Your task to perform on an android device: Open ESPN.com Image 0: 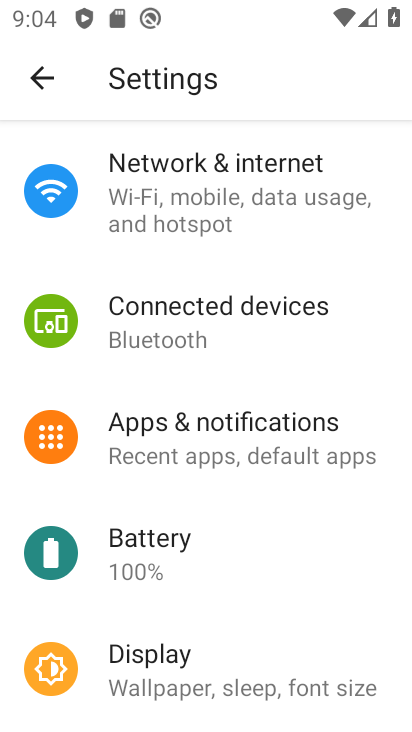
Step 0: press home button
Your task to perform on an android device: Open ESPN.com Image 1: 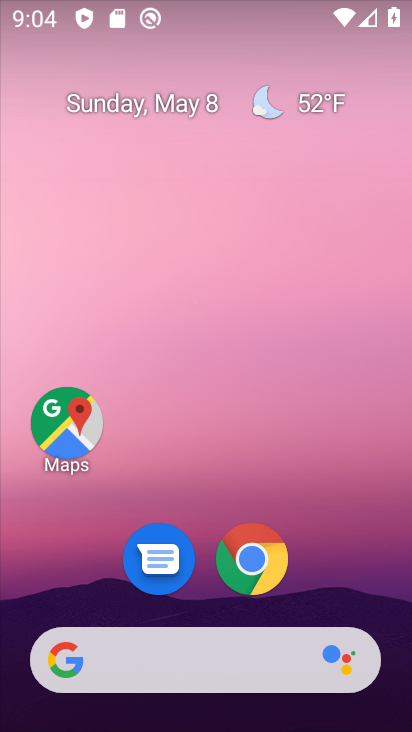
Step 1: click (241, 551)
Your task to perform on an android device: Open ESPN.com Image 2: 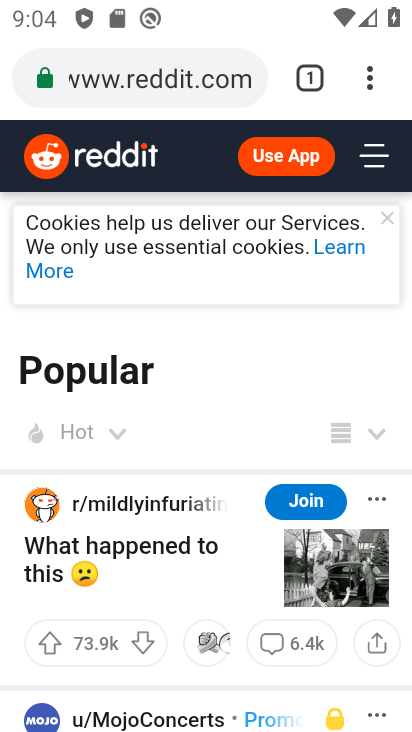
Step 2: click (314, 85)
Your task to perform on an android device: Open ESPN.com Image 3: 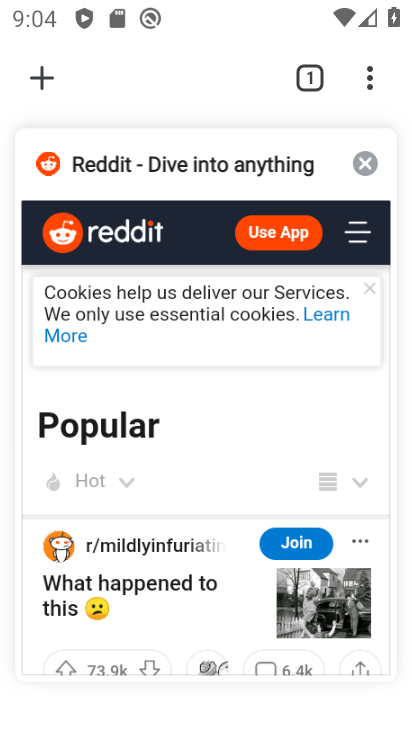
Step 3: click (364, 168)
Your task to perform on an android device: Open ESPN.com Image 4: 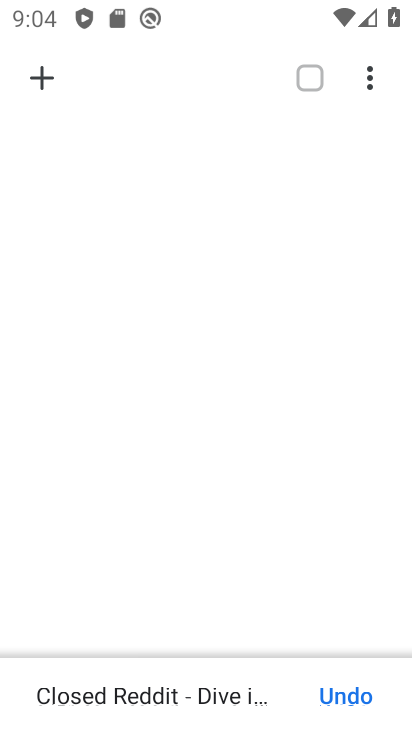
Step 4: click (48, 86)
Your task to perform on an android device: Open ESPN.com Image 5: 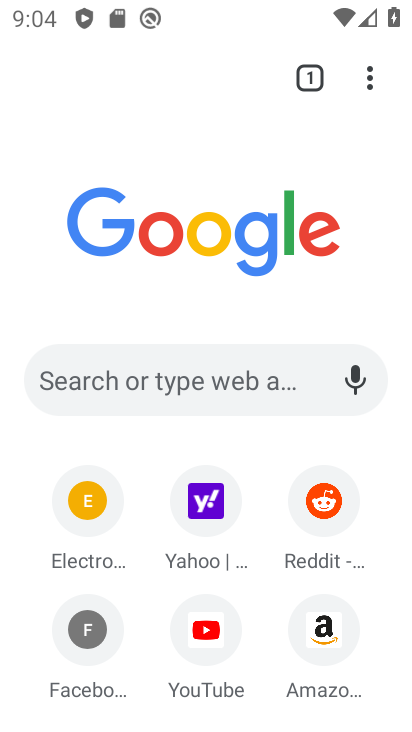
Step 5: click (208, 375)
Your task to perform on an android device: Open ESPN.com Image 6: 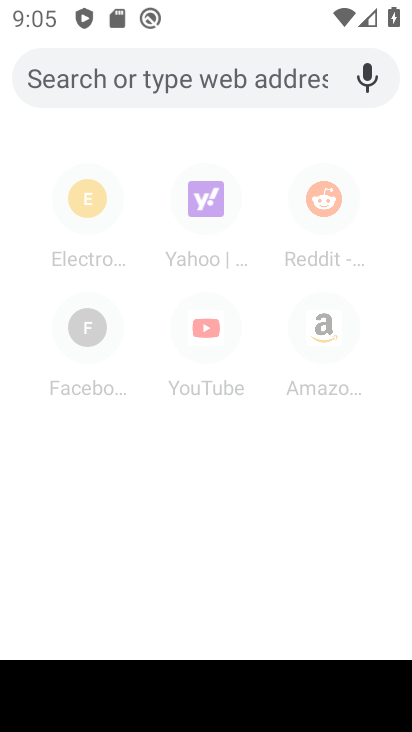
Step 6: type "espm.com"
Your task to perform on an android device: Open ESPN.com Image 7: 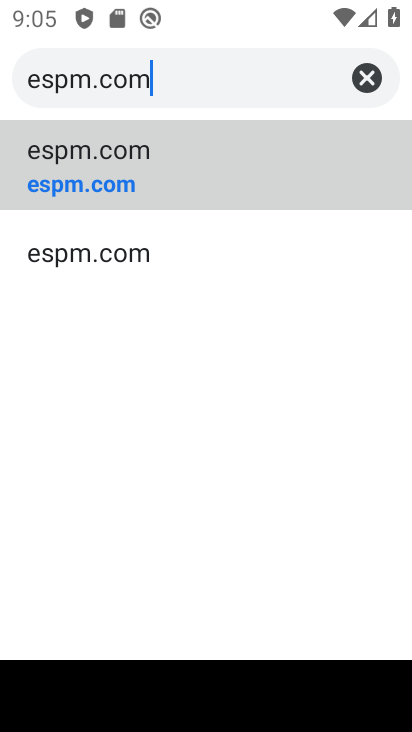
Step 7: click (131, 163)
Your task to perform on an android device: Open ESPN.com Image 8: 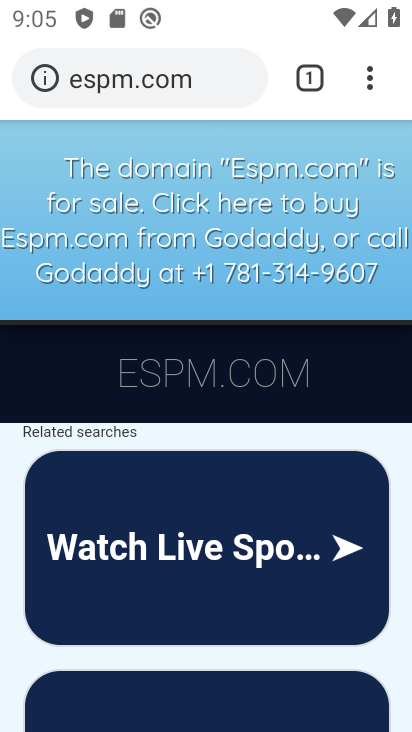
Step 8: click (222, 76)
Your task to perform on an android device: Open ESPN.com Image 9: 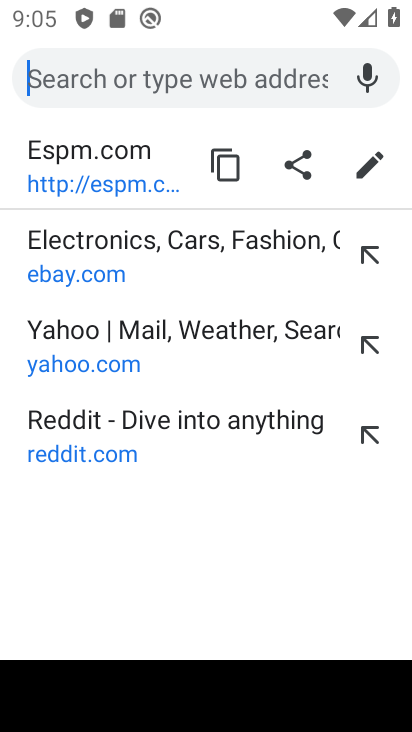
Step 9: type "espn.com"
Your task to perform on an android device: Open ESPN.com Image 10: 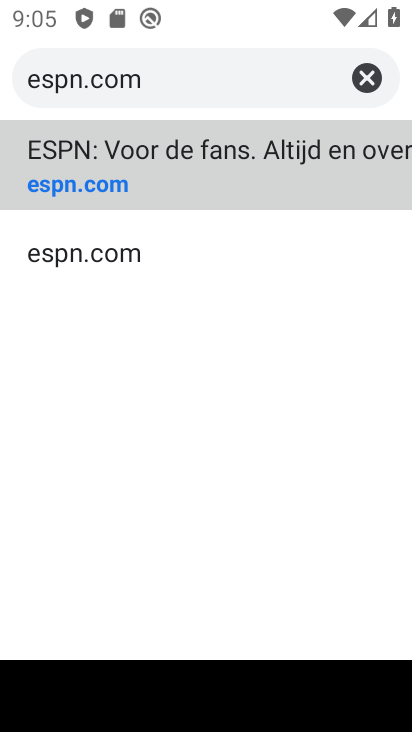
Step 10: click (107, 177)
Your task to perform on an android device: Open ESPN.com Image 11: 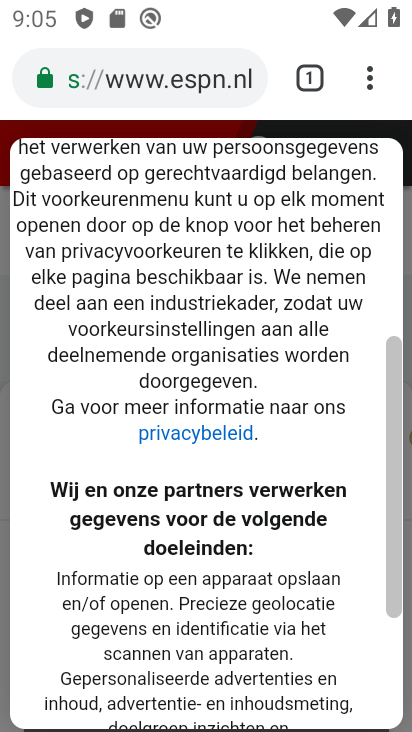
Step 11: click (353, 132)
Your task to perform on an android device: Open ESPN.com Image 12: 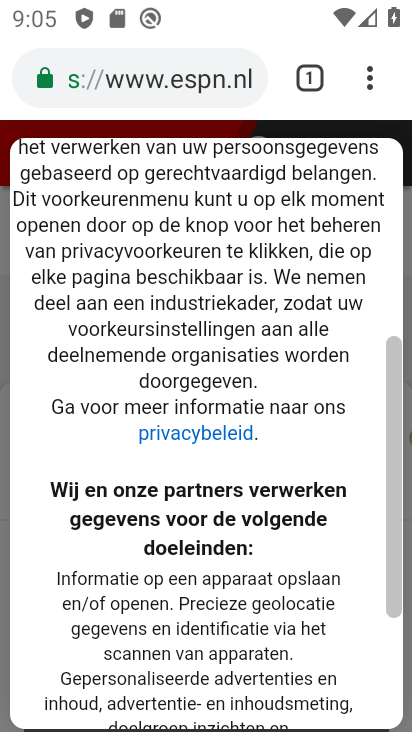
Step 12: drag from (339, 590) to (311, 155)
Your task to perform on an android device: Open ESPN.com Image 13: 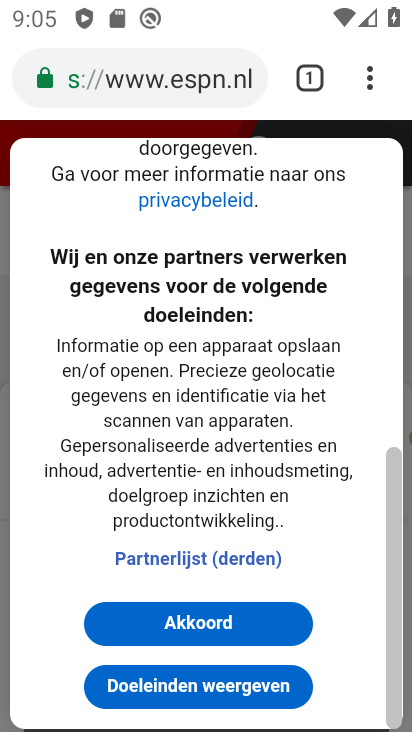
Step 13: click (264, 630)
Your task to perform on an android device: Open ESPN.com Image 14: 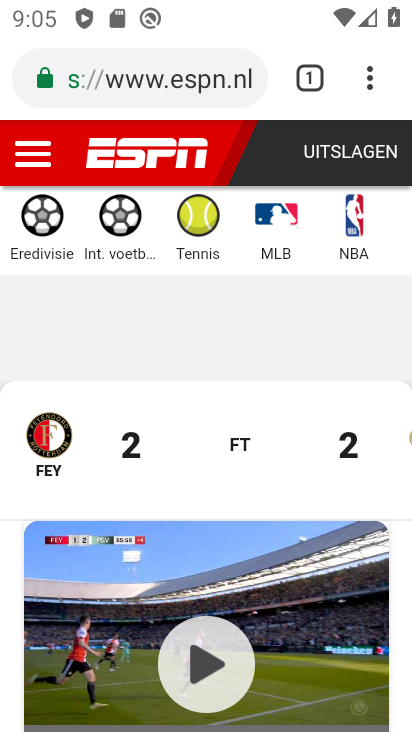
Step 14: task complete